Your task to perform on an android device: open app "Venmo" Image 0: 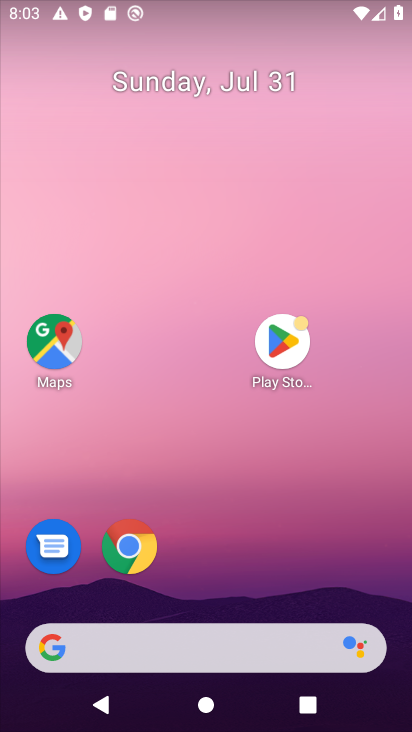
Step 0: drag from (252, 648) to (367, 33)
Your task to perform on an android device: open app "Venmo" Image 1: 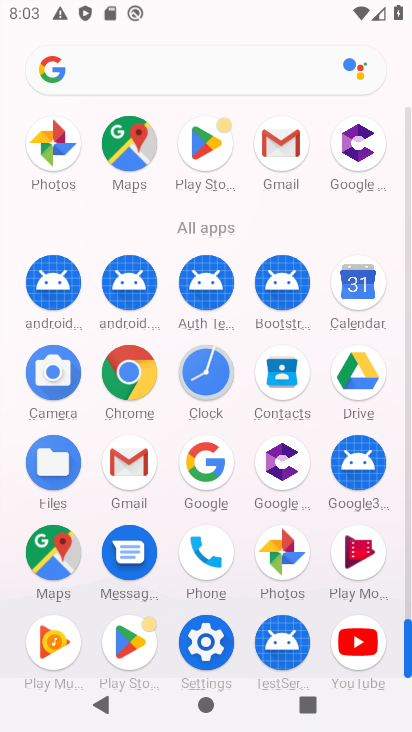
Step 1: task complete